Your task to perform on an android device: Show the shopping cart on walmart.com. Search for usb-c to usb-b on walmart.com, select the first entry, add it to the cart, then select checkout. Image 0: 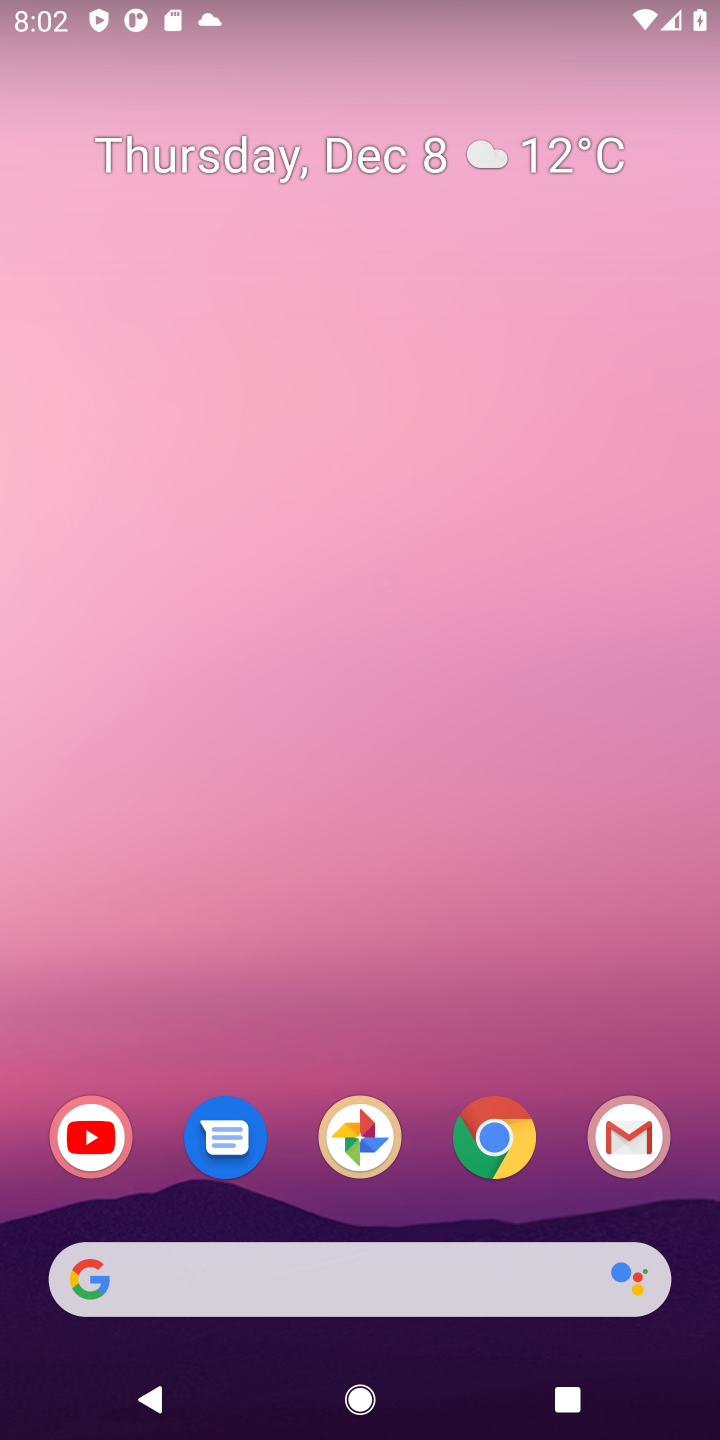
Step 0: click (536, 1142)
Your task to perform on an android device: Show the shopping cart on walmart.com. Search for usb-c to usb-b on walmart.com, select the first entry, add it to the cart, then select checkout. Image 1: 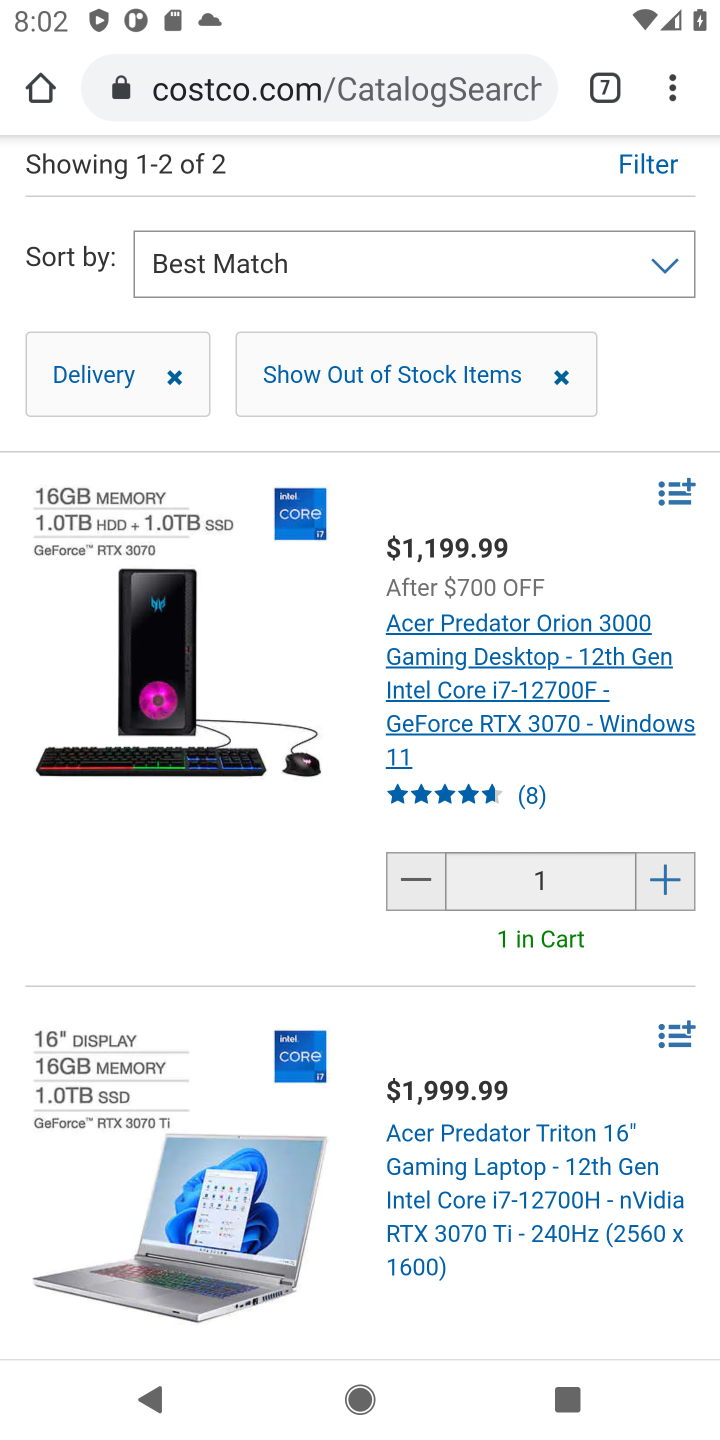
Step 1: click (599, 85)
Your task to perform on an android device: Show the shopping cart on walmart.com. Search for usb-c to usb-b on walmart.com, select the first entry, add it to the cart, then select checkout. Image 2: 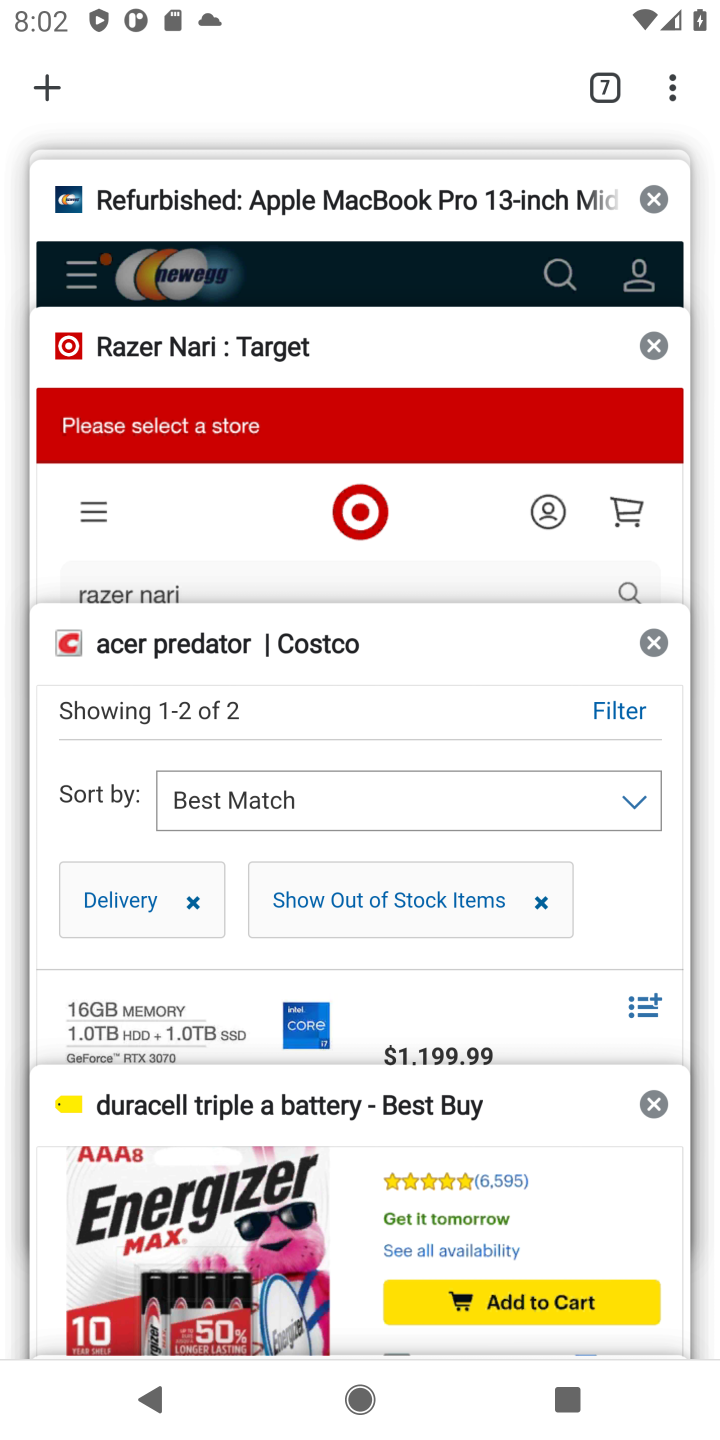
Step 2: drag from (416, 192) to (310, 642)
Your task to perform on an android device: Show the shopping cart on walmart.com. Search for usb-c to usb-b on walmart.com, select the first entry, add it to the cart, then select checkout. Image 3: 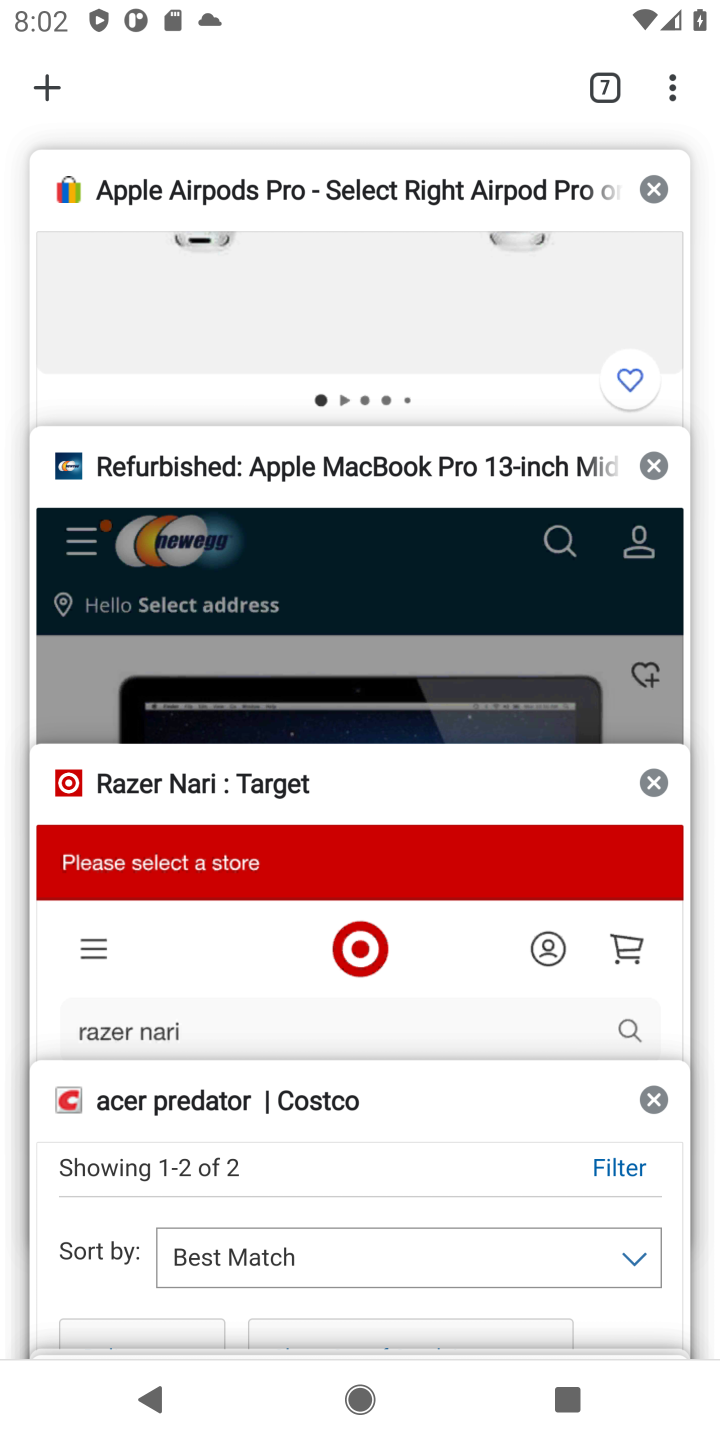
Step 3: drag from (169, 1241) to (311, 666)
Your task to perform on an android device: Show the shopping cart on walmart.com. Search for usb-c to usb-b on walmart.com, select the first entry, add it to the cart, then select checkout. Image 4: 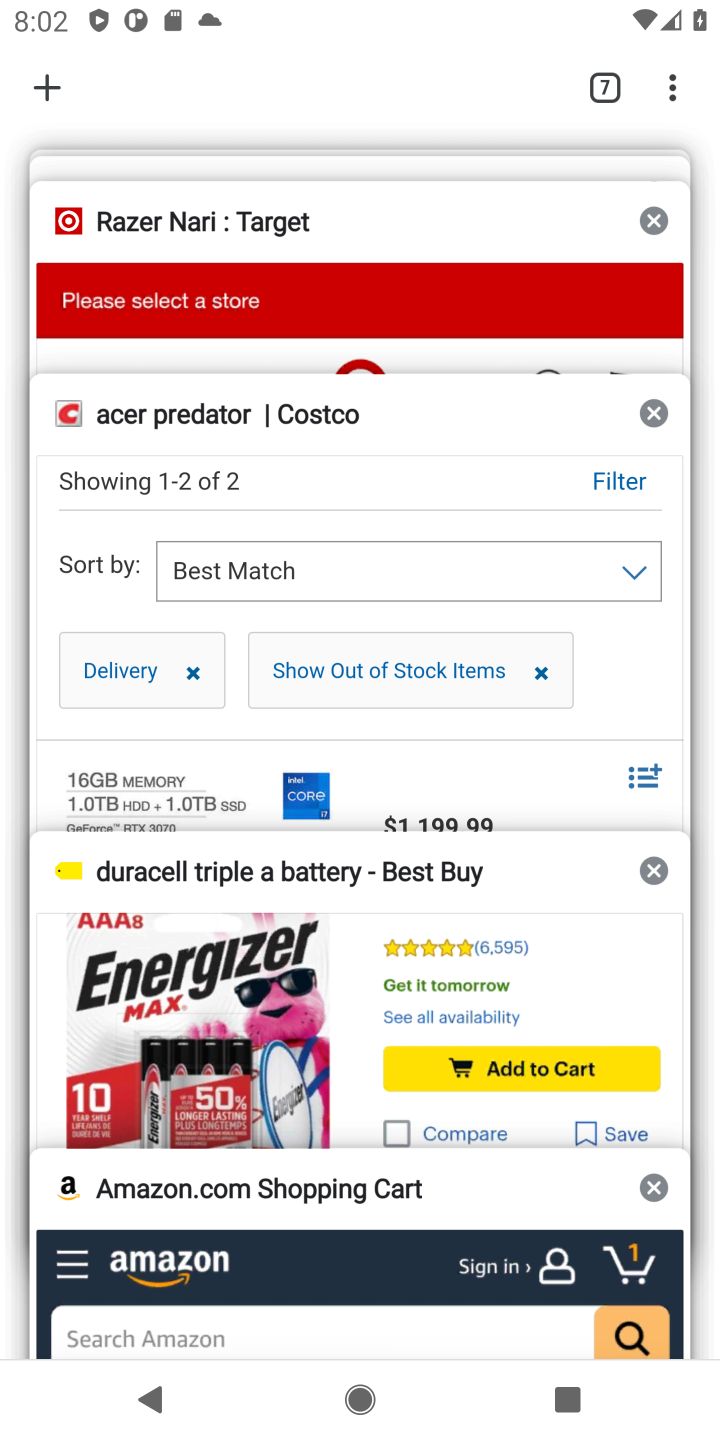
Step 4: drag from (280, 1241) to (374, 618)
Your task to perform on an android device: Show the shopping cart on walmart.com. Search for usb-c to usb-b on walmart.com, select the first entry, add it to the cart, then select checkout. Image 5: 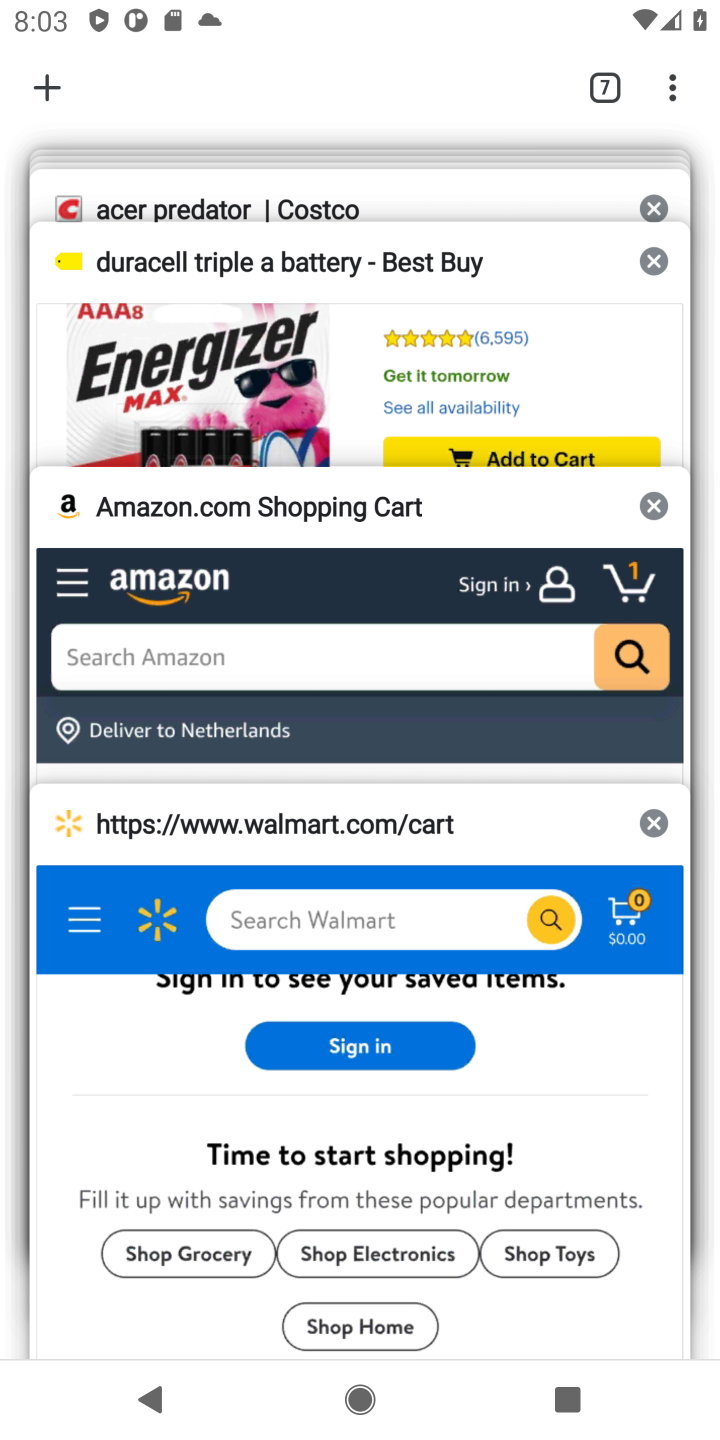
Step 5: click (121, 998)
Your task to perform on an android device: Show the shopping cart on walmart.com. Search for usb-c to usb-b on walmart.com, select the first entry, add it to the cart, then select checkout. Image 6: 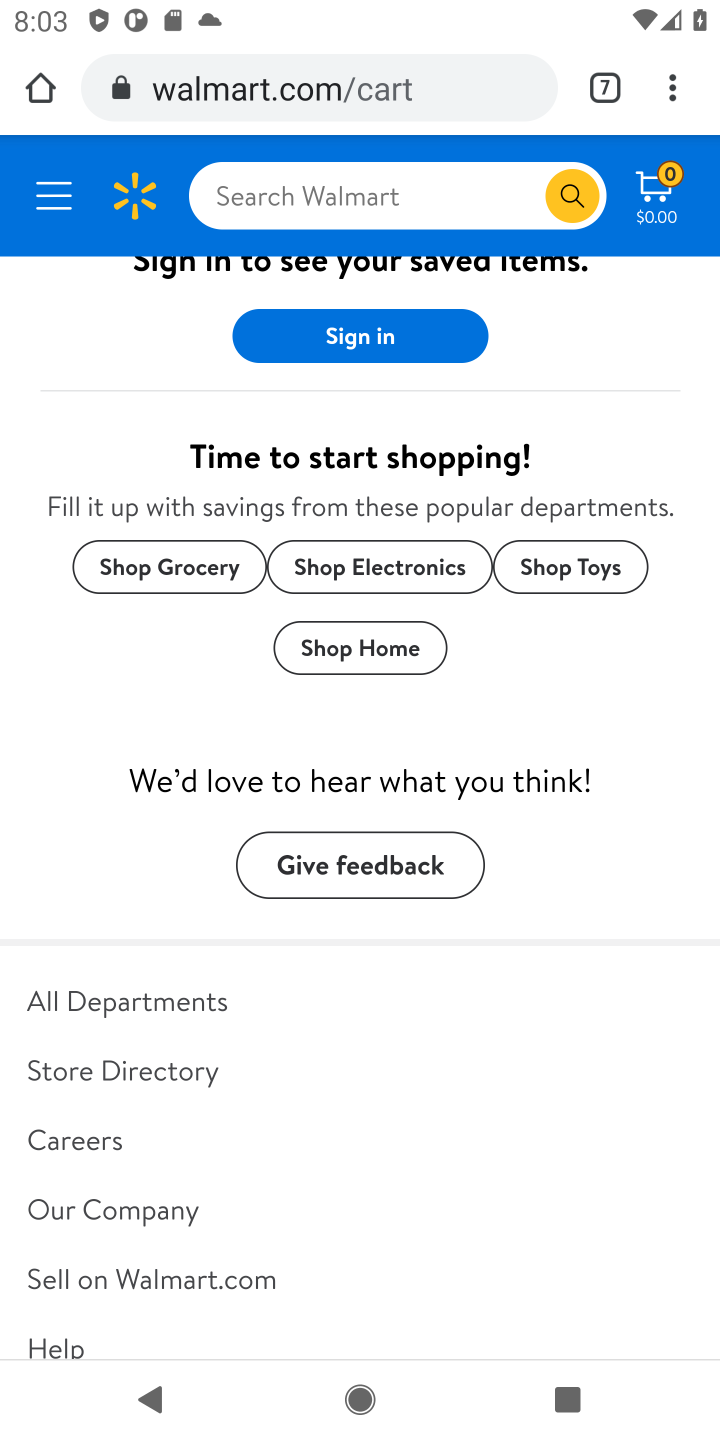
Step 6: drag from (664, 1438) to (7, 573)
Your task to perform on an android device: Show the shopping cart on walmart.com. Search for usb-c to usb-b on walmart.com, select the first entry, add it to the cart, then select checkout. Image 7: 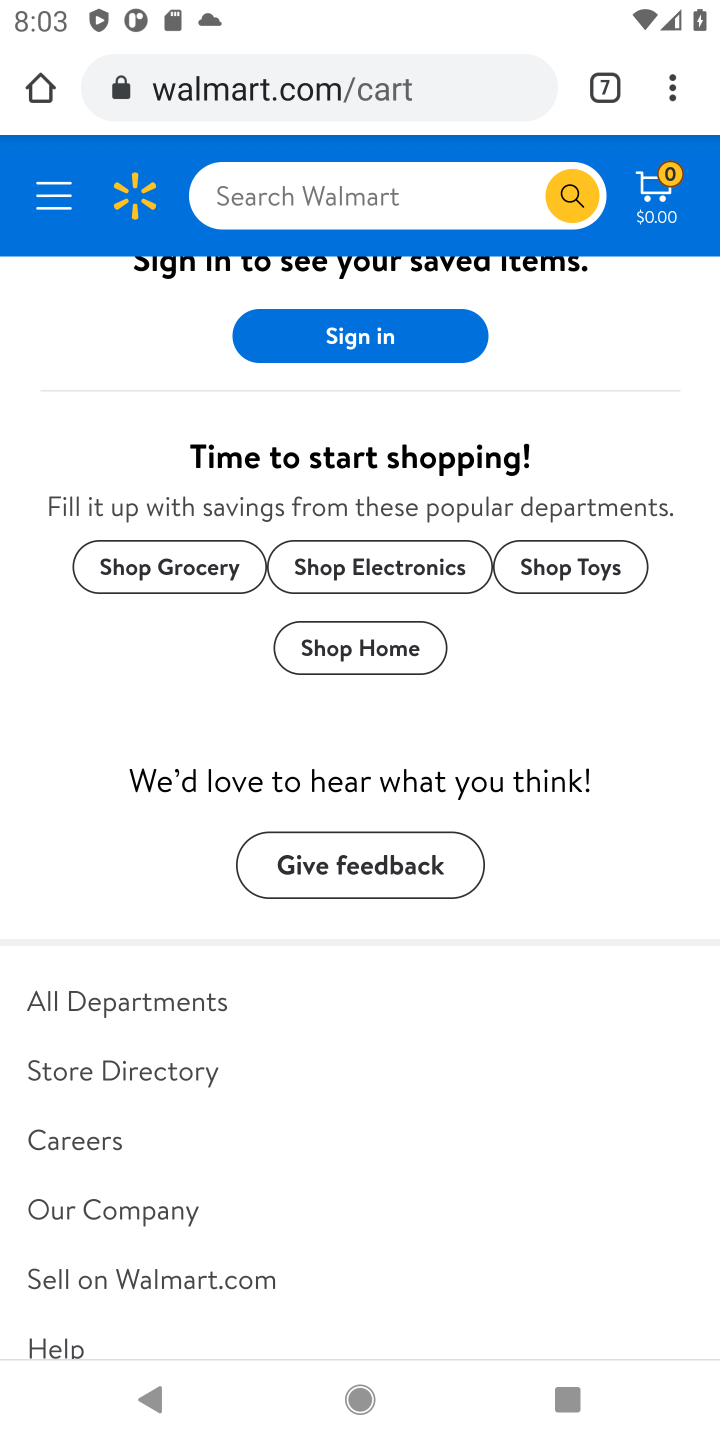
Step 7: click (326, 192)
Your task to perform on an android device: Show the shopping cart on walmart.com. Search for usb-c to usb-b on walmart.com, select the first entry, add it to the cart, then select checkout. Image 8: 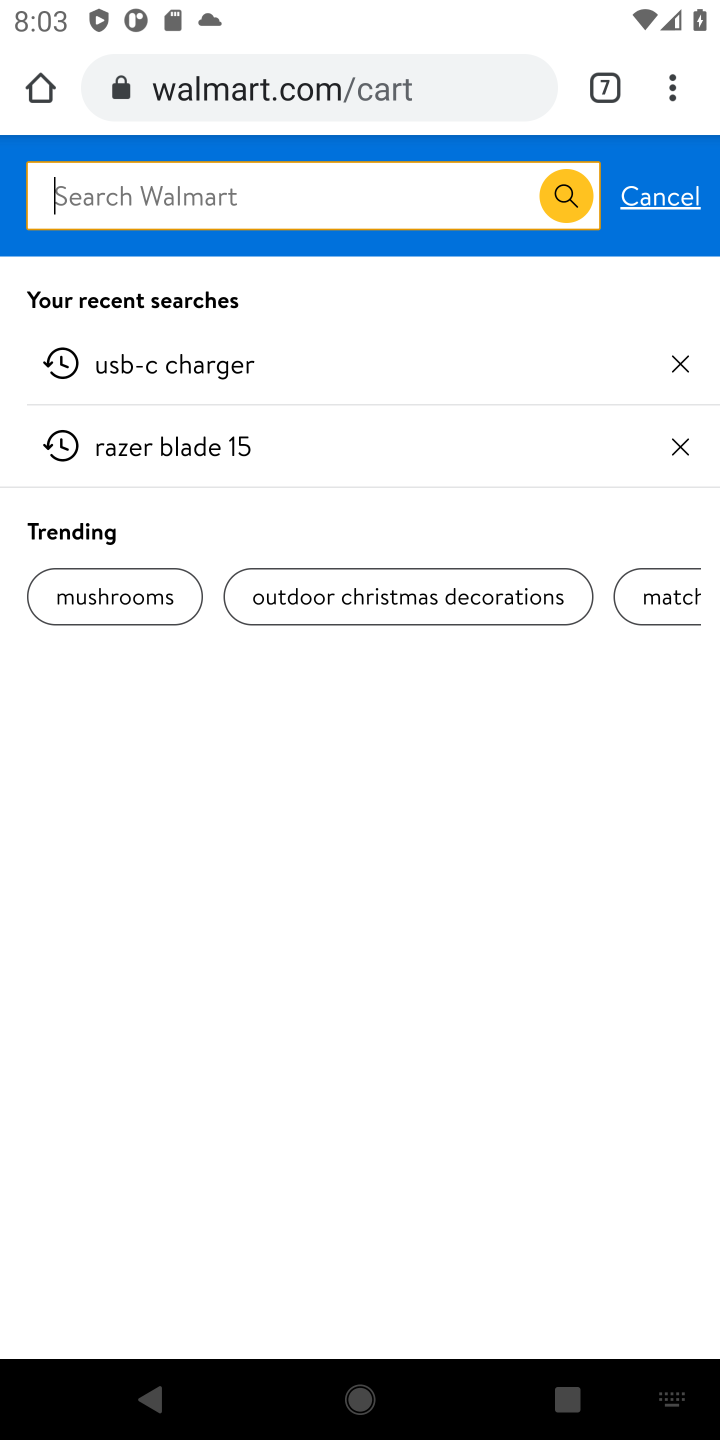
Step 8: type "usb-c to usb-b"
Your task to perform on an android device: Show the shopping cart on walmart.com. Search for usb-c to usb-b on walmart.com, select the first entry, add it to the cart, then select checkout. Image 9: 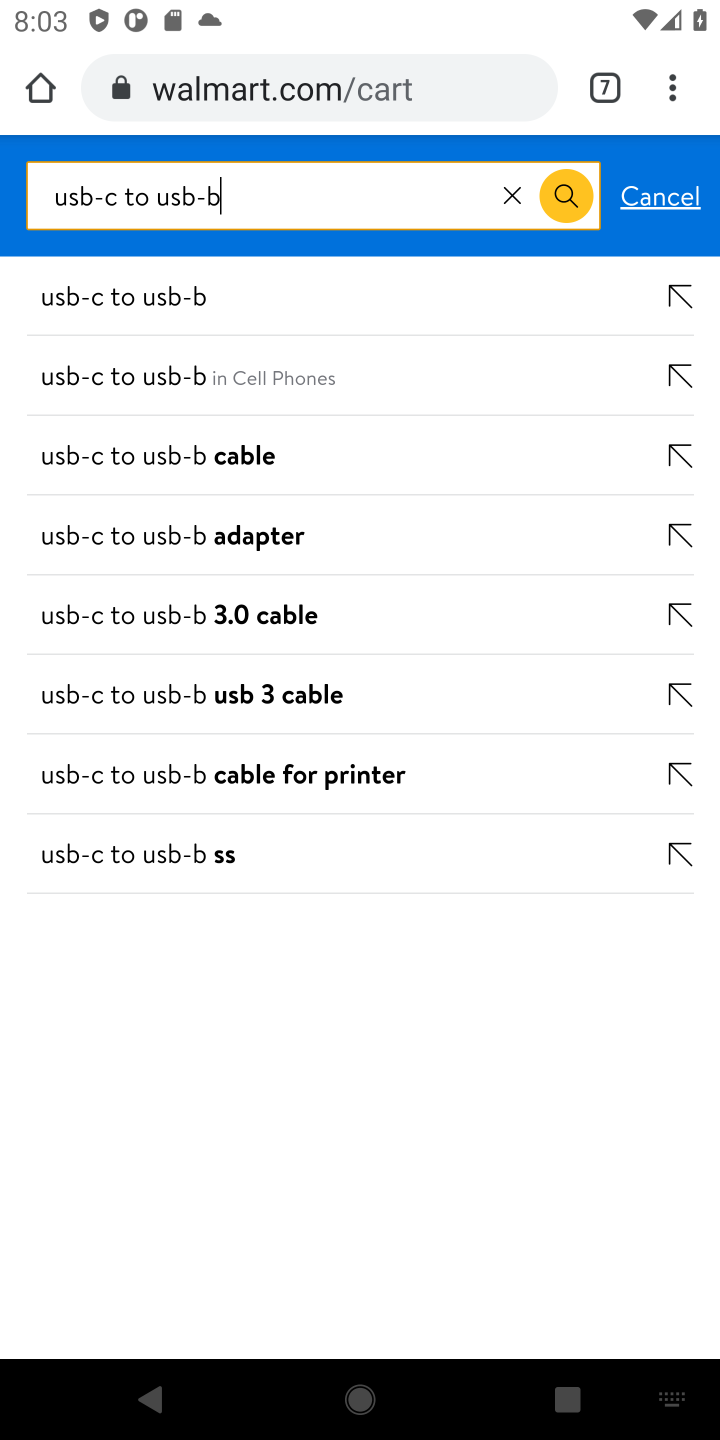
Step 9: click (562, 202)
Your task to perform on an android device: Show the shopping cart on walmart.com. Search for usb-c to usb-b on walmart.com, select the first entry, add it to the cart, then select checkout. Image 10: 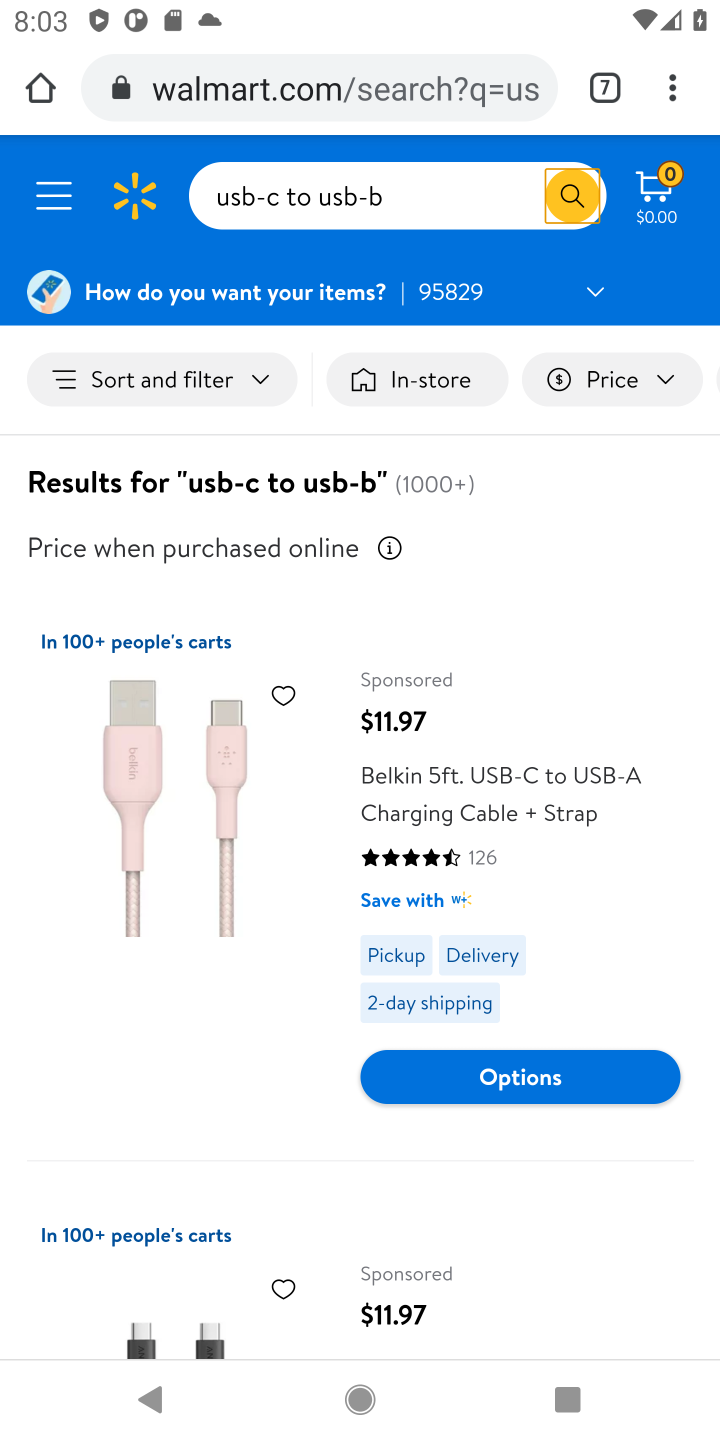
Step 10: click (504, 781)
Your task to perform on an android device: Show the shopping cart on walmart.com. Search for usb-c to usb-b on walmart.com, select the first entry, add it to the cart, then select checkout. Image 11: 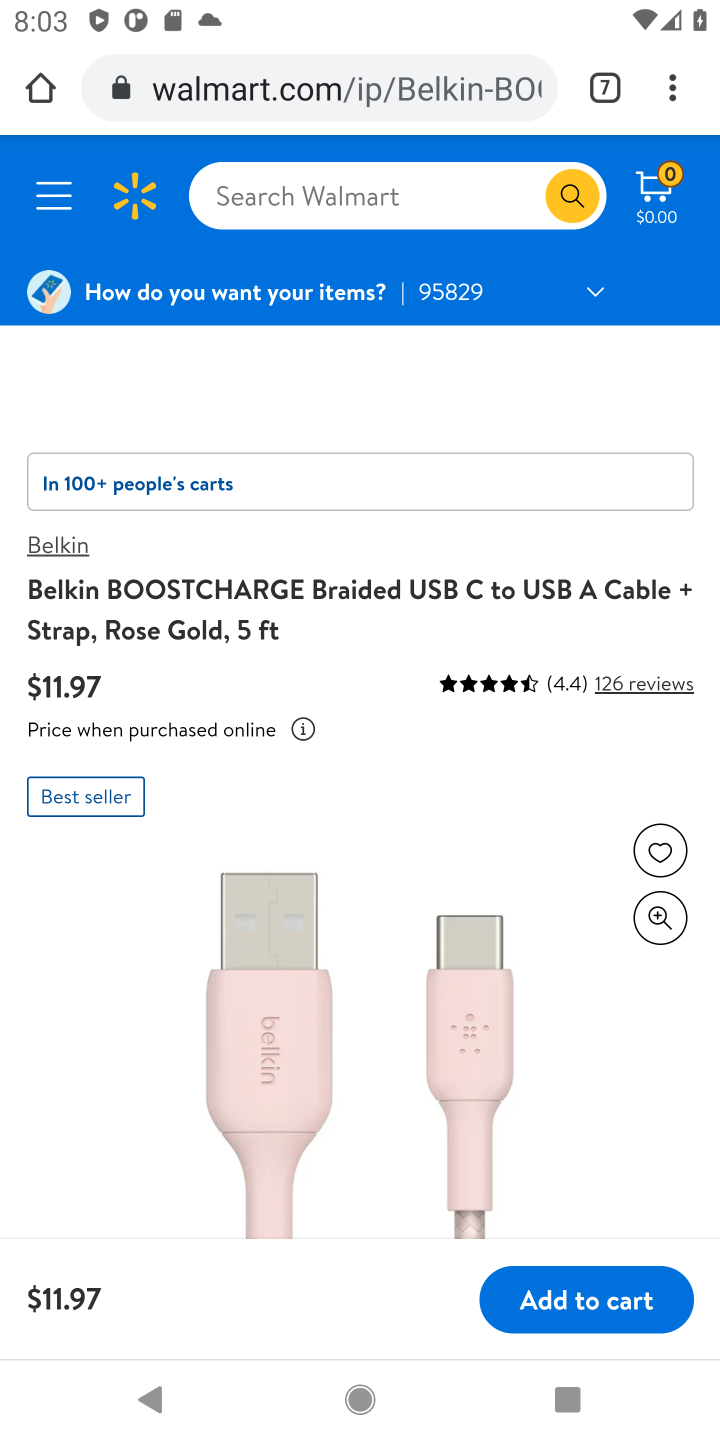
Step 11: click (555, 1273)
Your task to perform on an android device: Show the shopping cart on walmart.com. Search for usb-c to usb-b on walmart.com, select the first entry, add it to the cart, then select checkout. Image 12: 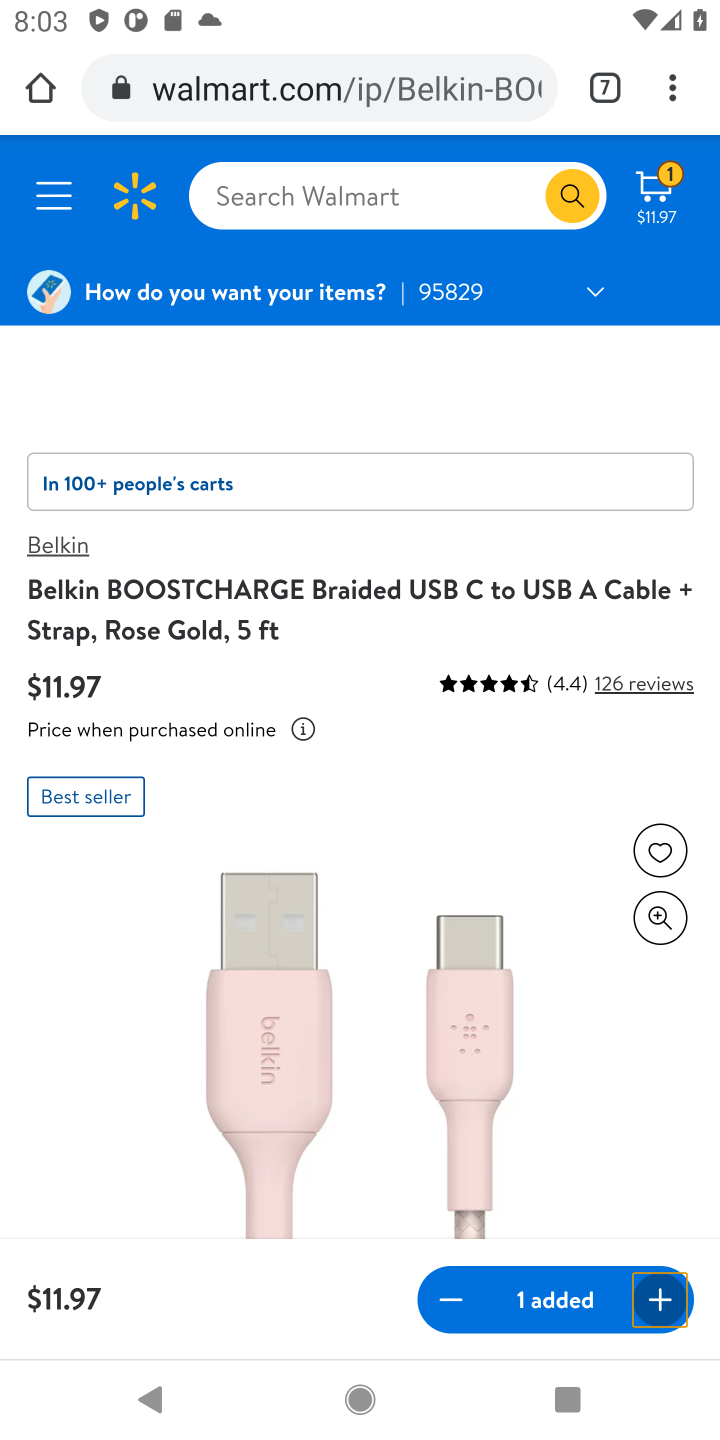
Step 12: task complete